Your task to perform on an android device: Open Chrome and go to settings Image 0: 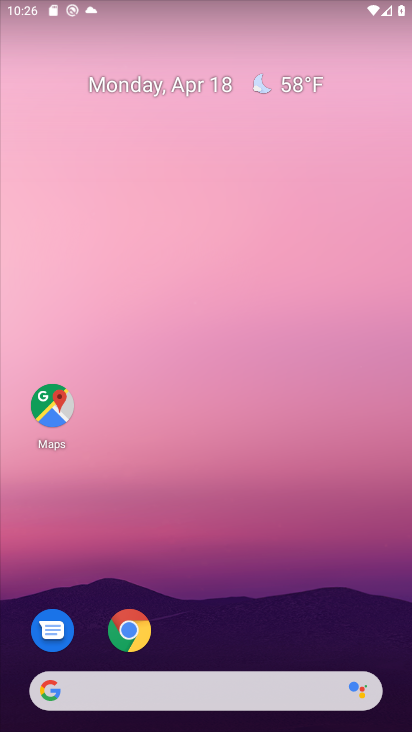
Step 0: click (140, 643)
Your task to perform on an android device: Open Chrome and go to settings Image 1: 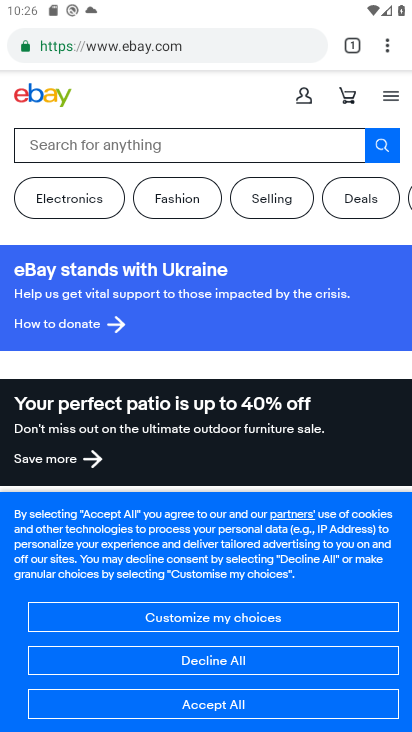
Step 1: click (382, 42)
Your task to perform on an android device: Open Chrome and go to settings Image 2: 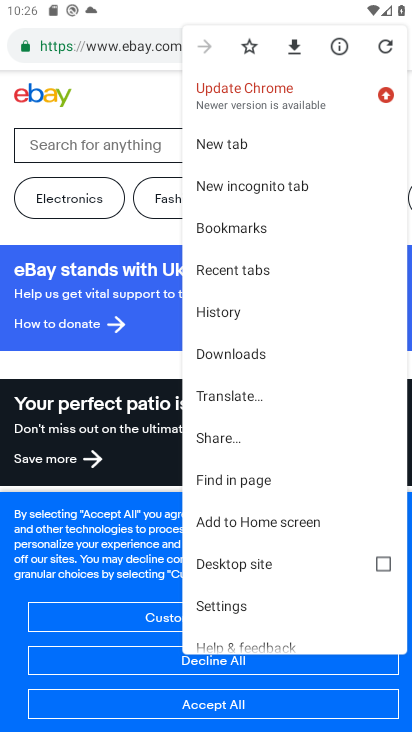
Step 2: click (223, 599)
Your task to perform on an android device: Open Chrome and go to settings Image 3: 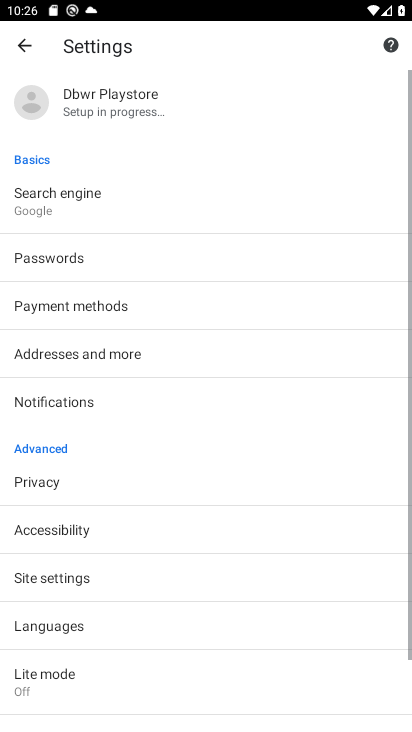
Step 3: task complete